Your task to perform on an android device: turn pop-ups off in chrome Image 0: 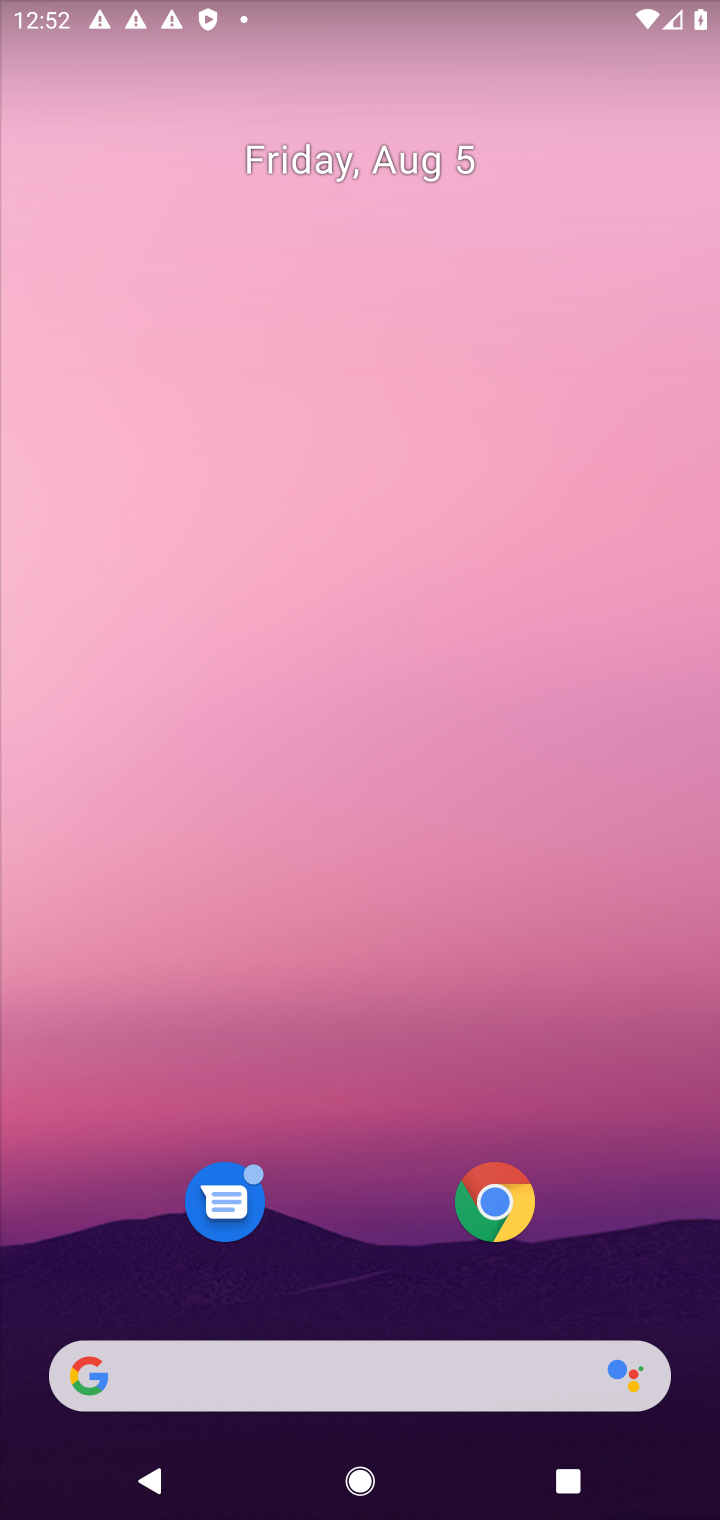
Step 0: press home button
Your task to perform on an android device: turn pop-ups off in chrome Image 1: 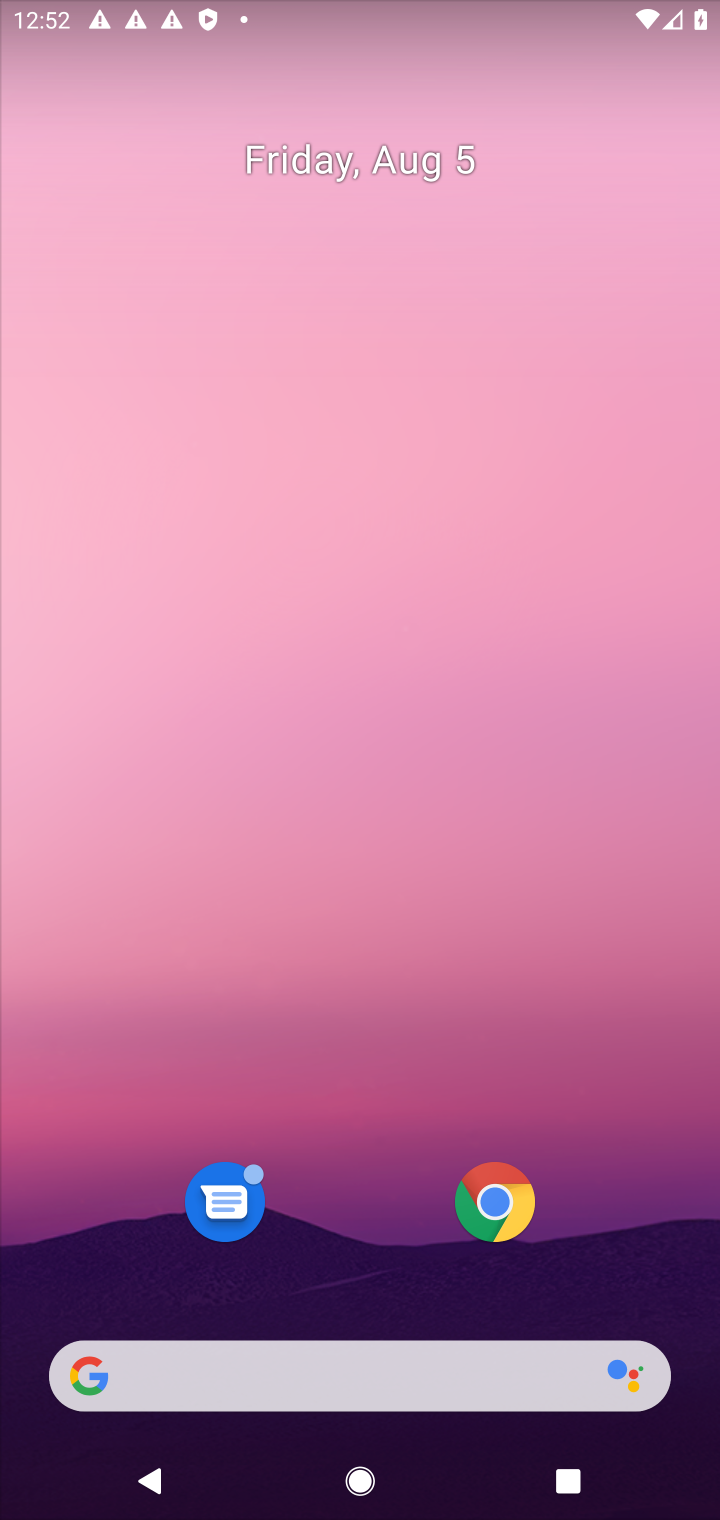
Step 1: drag from (557, 881) to (391, 232)
Your task to perform on an android device: turn pop-ups off in chrome Image 2: 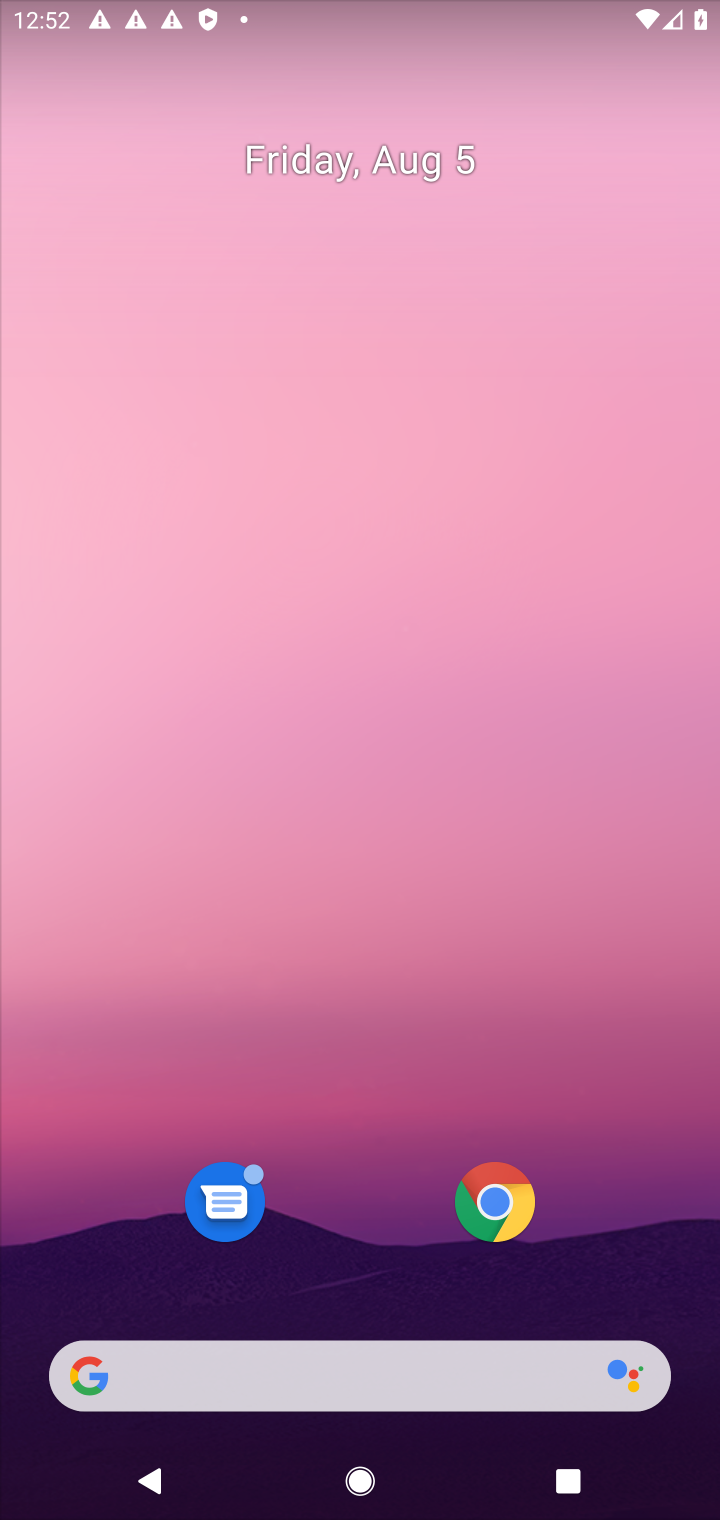
Step 2: drag from (348, 765) to (496, 193)
Your task to perform on an android device: turn pop-ups off in chrome Image 3: 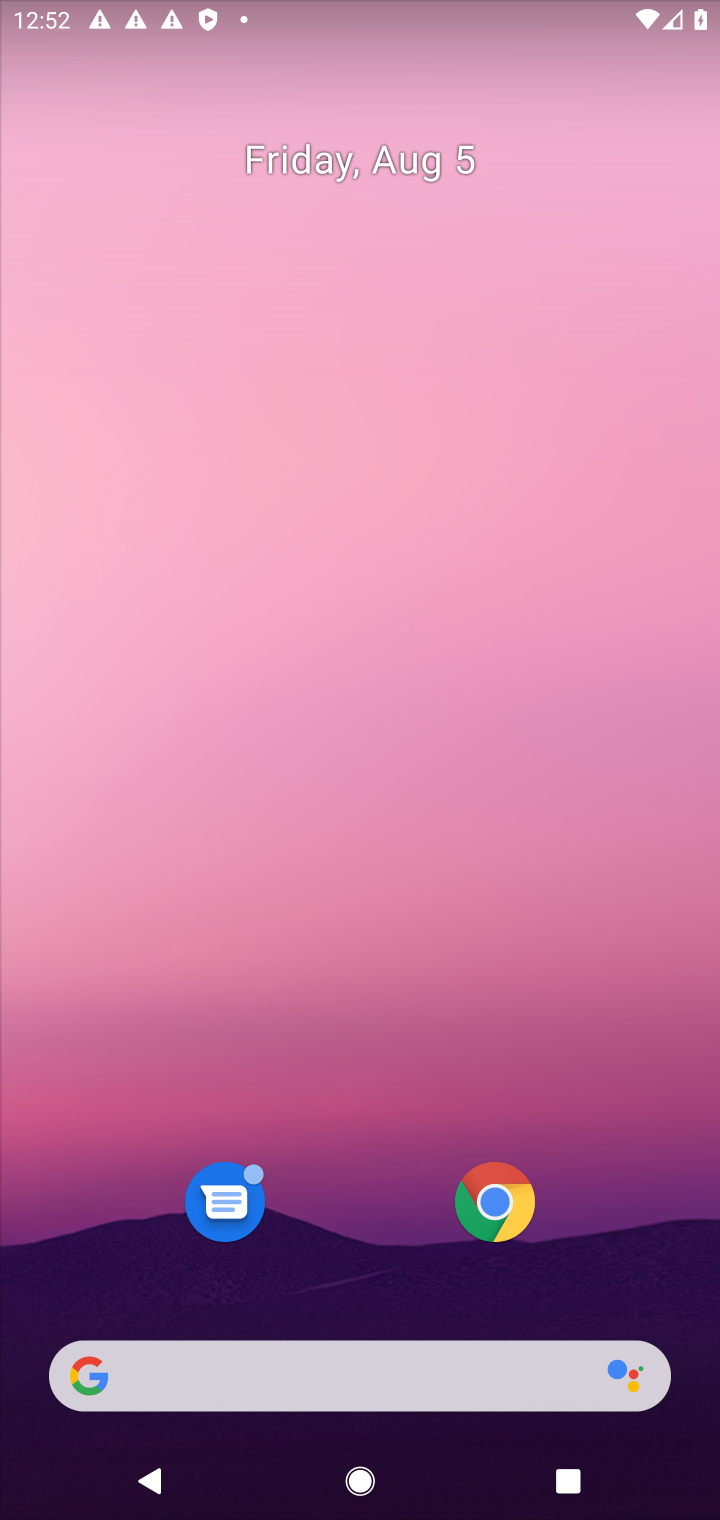
Step 3: drag from (346, 1241) to (424, 167)
Your task to perform on an android device: turn pop-ups off in chrome Image 4: 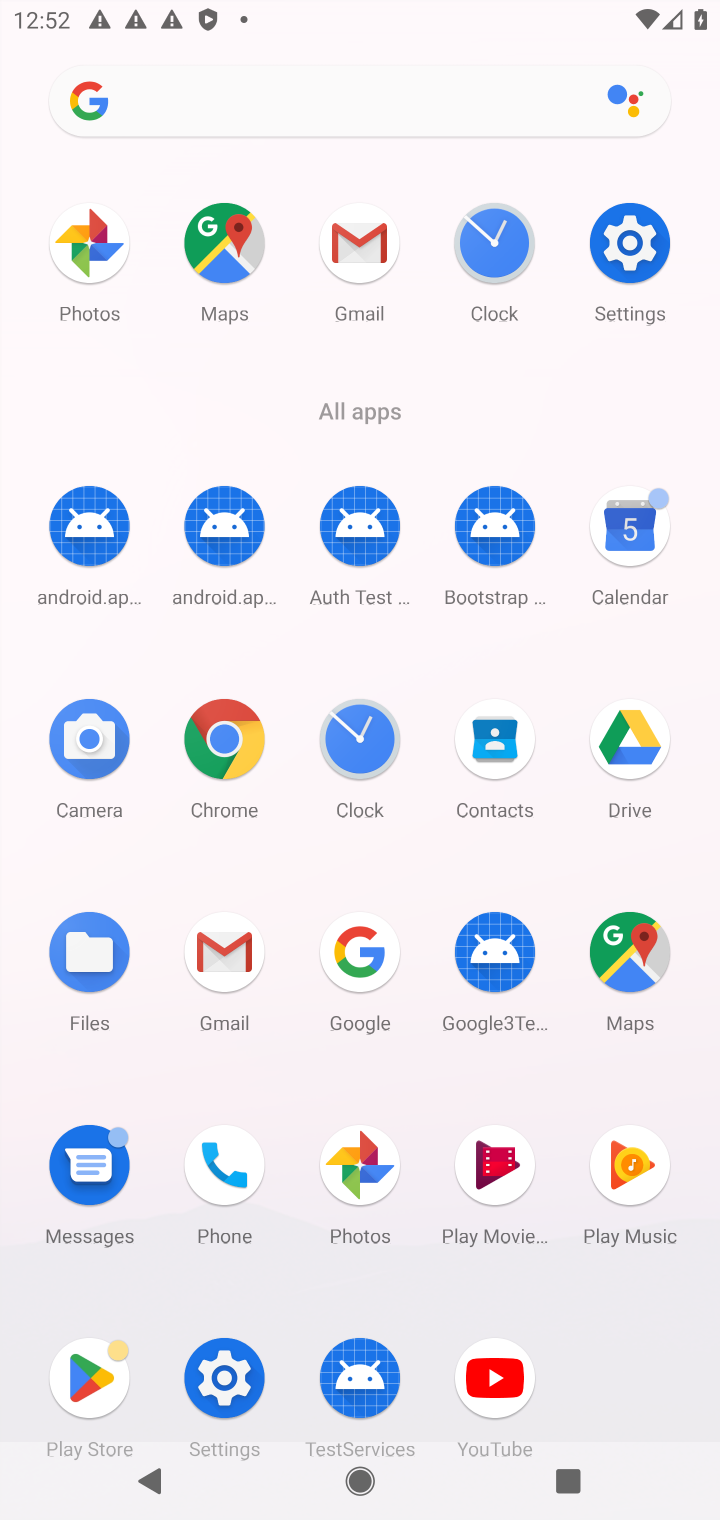
Step 4: click (218, 740)
Your task to perform on an android device: turn pop-ups off in chrome Image 5: 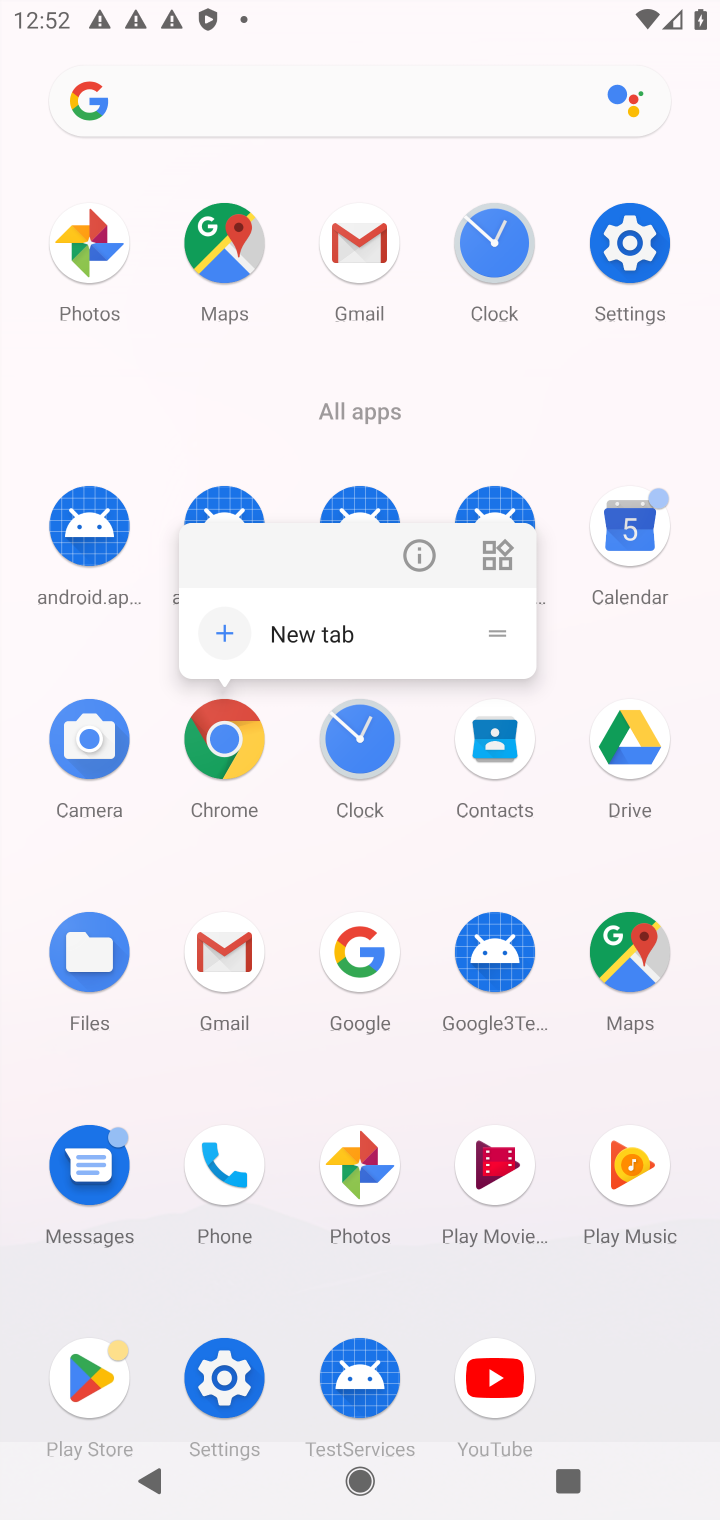
Step 5: click (216, 755)
Your task to perform on an android device: turn pop-ups off in chrome Image 6: 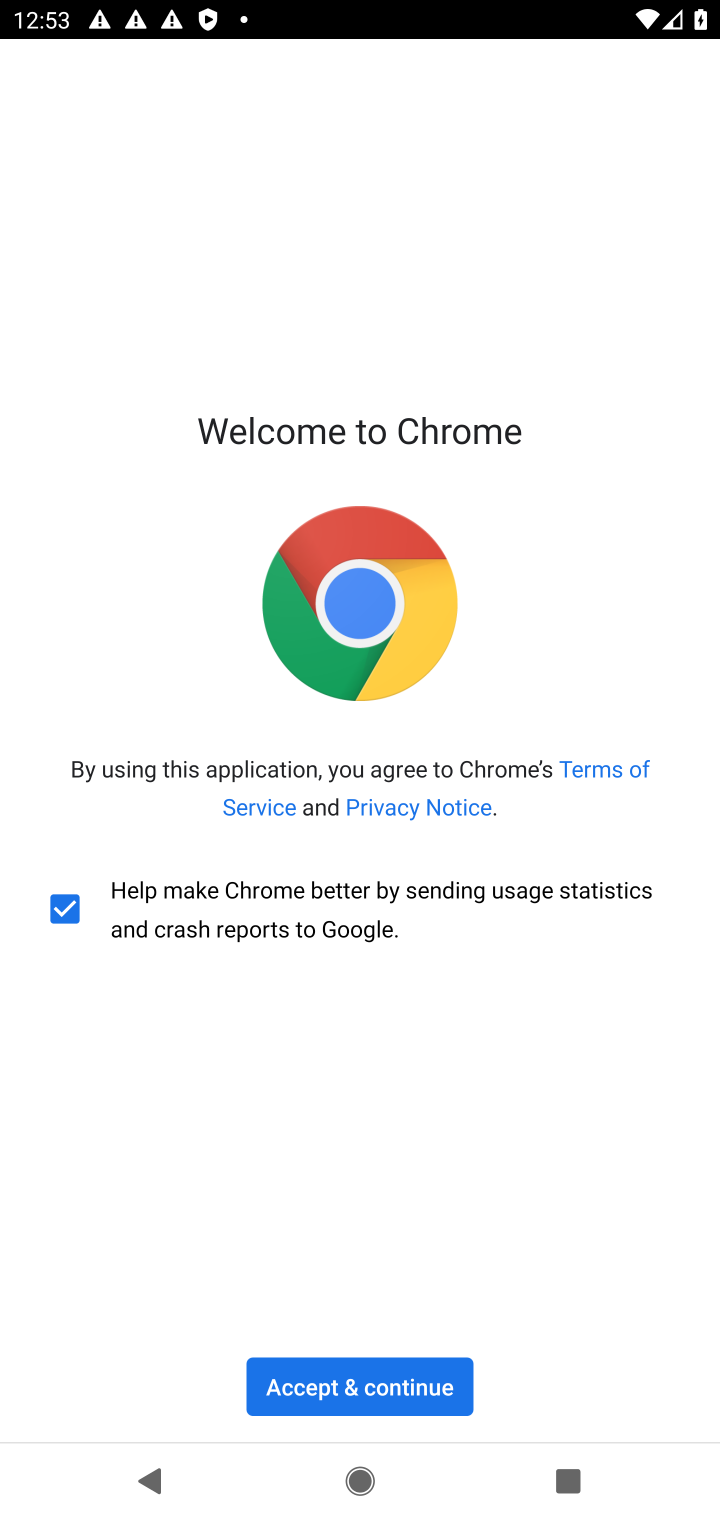
Step 6: click (409, 1378)
Your task to perform on an android device: turn pop-ups off in chrome Image 7: 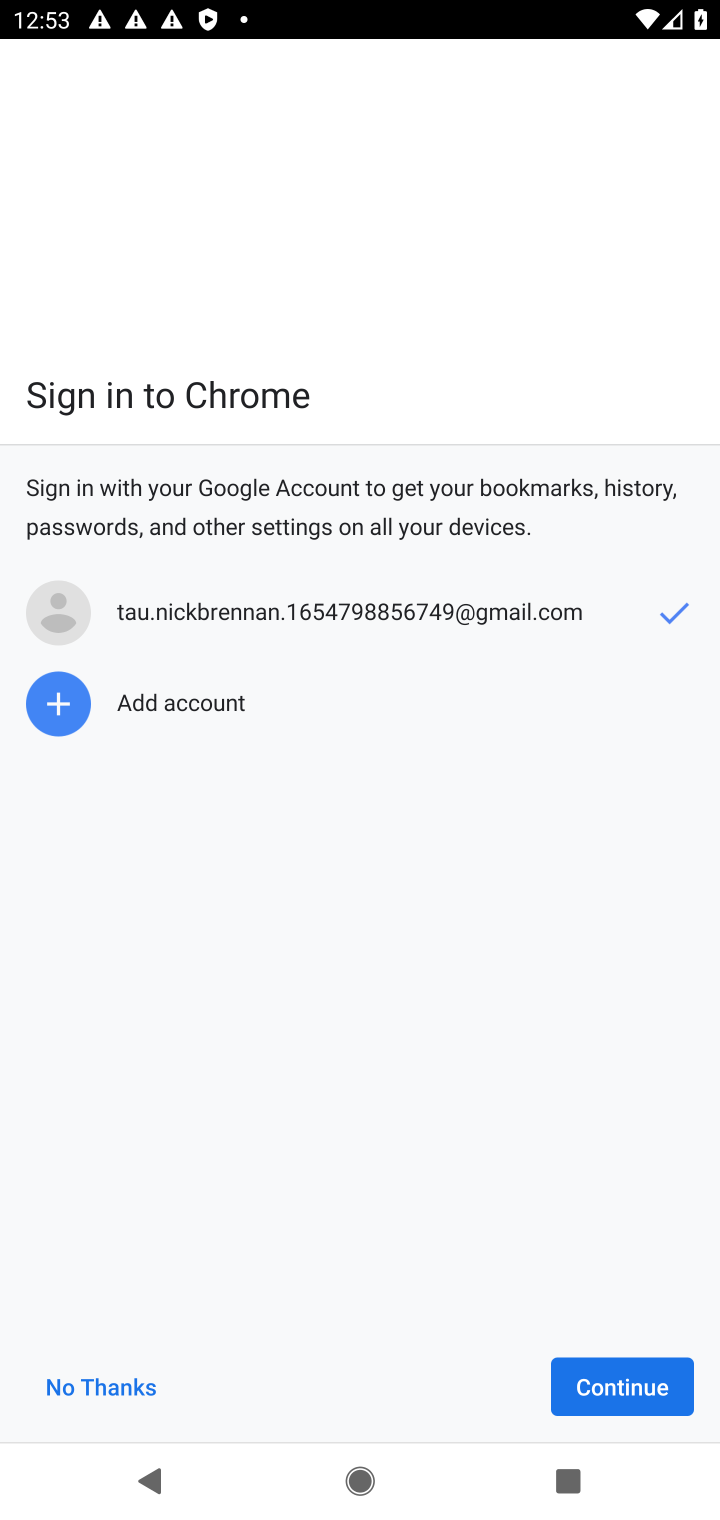
Step 7: click (653, 1393)
Your task to perform on an android device: turn pop-ups off in chrome Image 8: 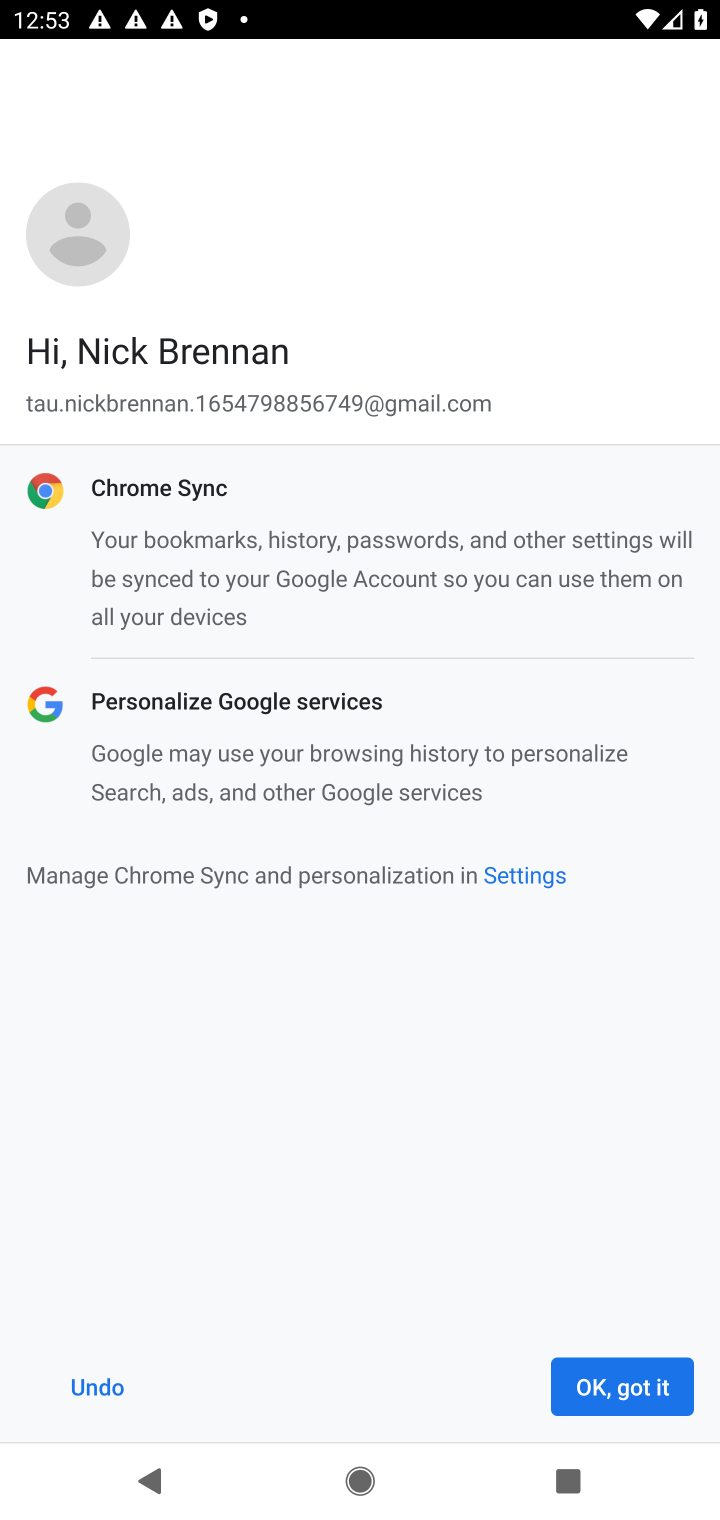
Step 8: click (639, 1392)
Your task to perform on an android device: turn pop-ups off in chrome Image 9: 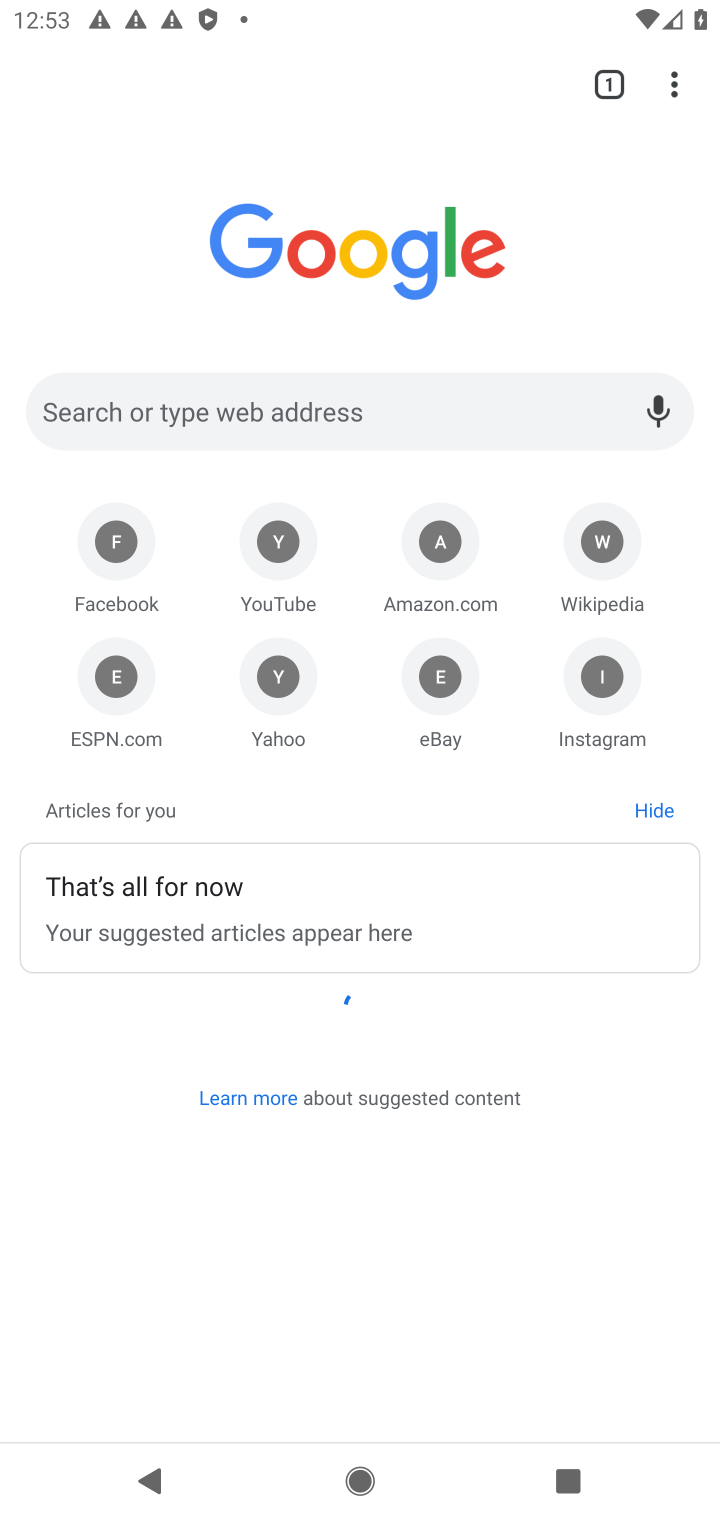
Step 9: click (671, 78)
Your task to perform on an android device: turn pop-ups off in chrome Image 10: 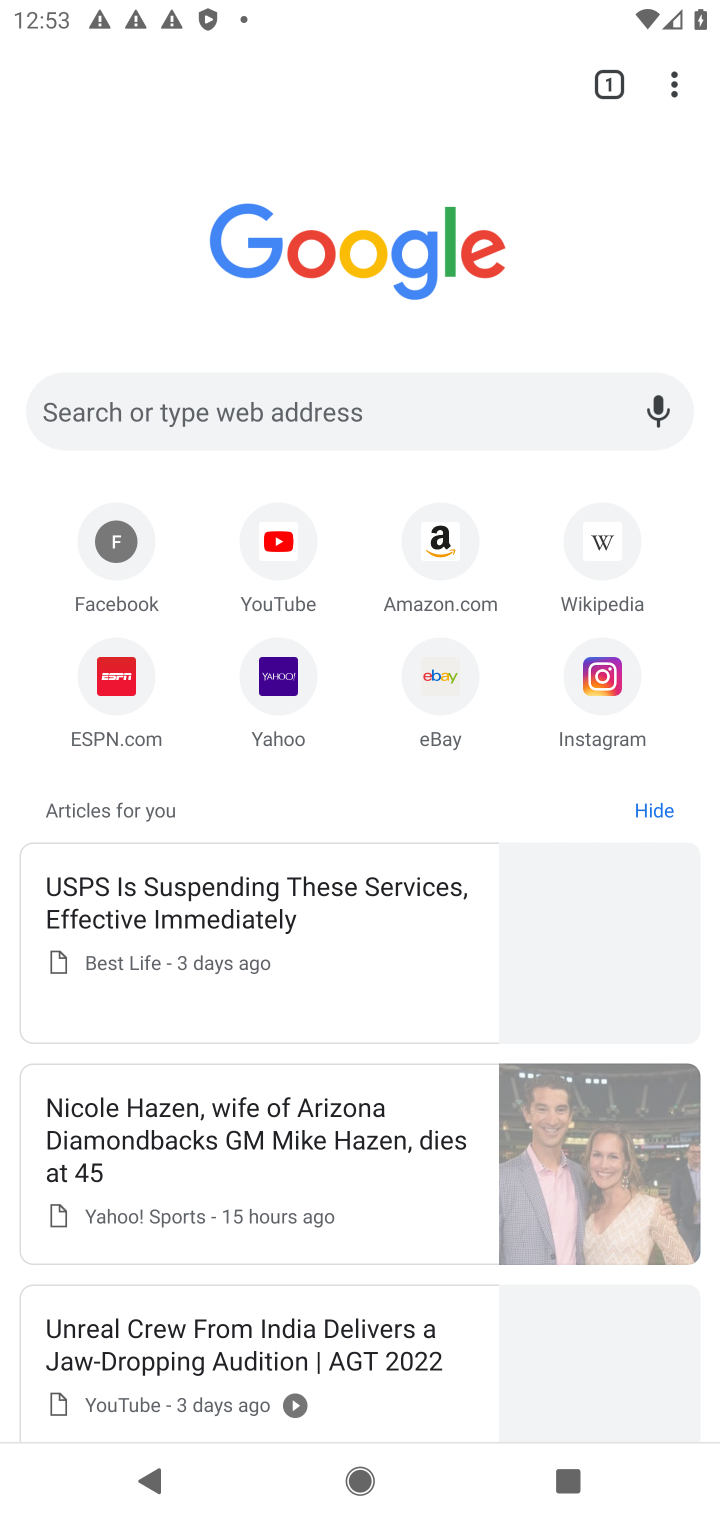
Step 10: drag from (667, 84) to (379, 712)
Your task to perform on an android device: turn pop-ups off in chrome Image 11: 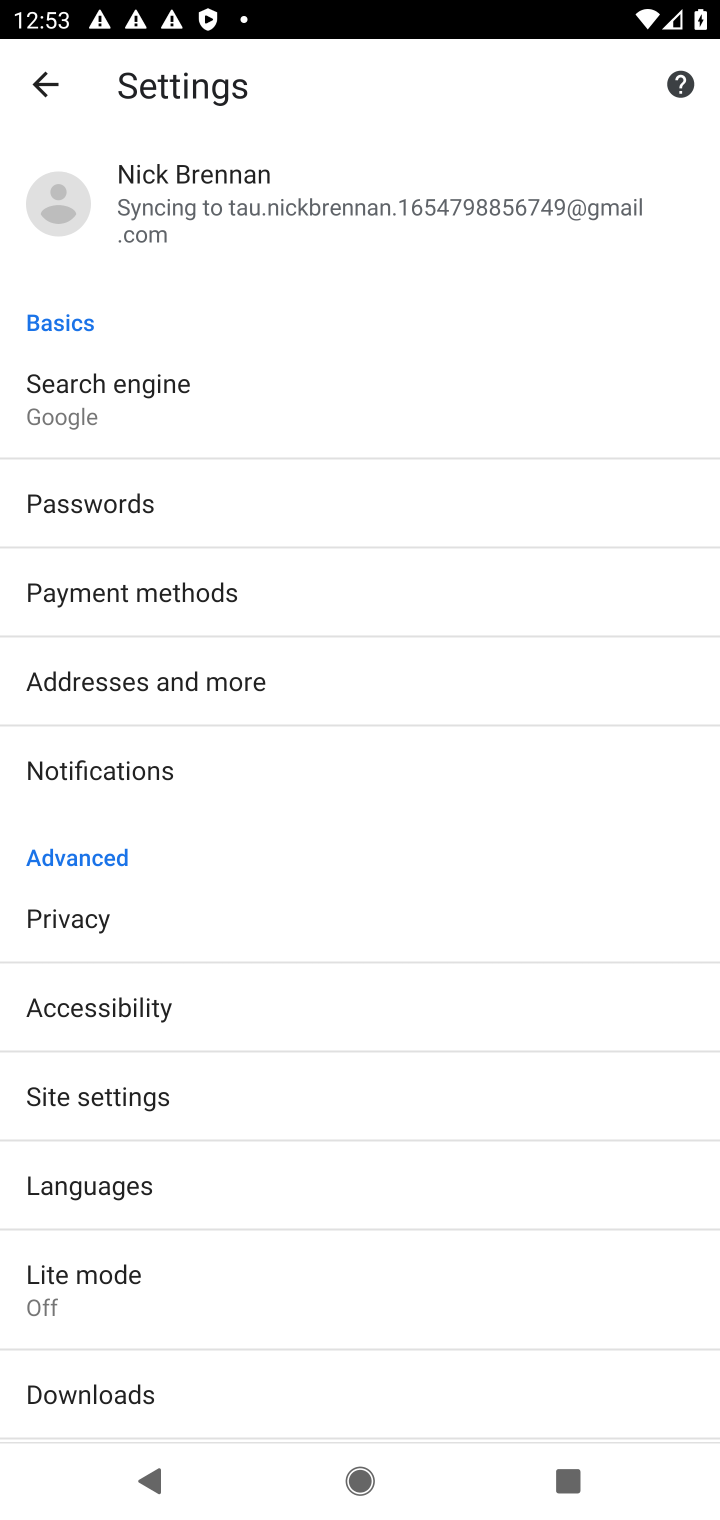
Step 11: drag from (390, 1014) to (426, 383)
Your task to perform on an android device: turn pop-ups off in chrome Image 12: 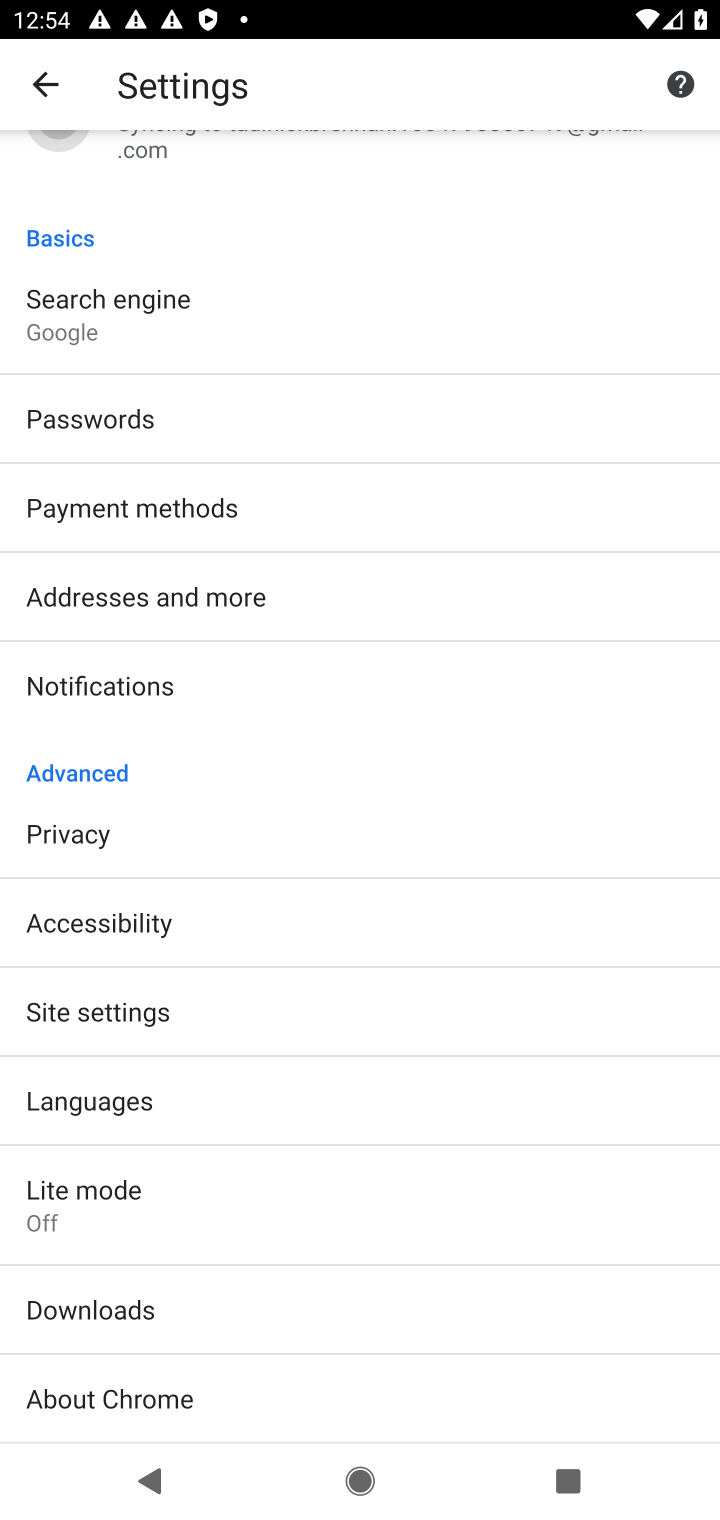
Step 12: click (159, 1008)
Your task to perform on an android device: turn pop-ups off in chrome Image 13: 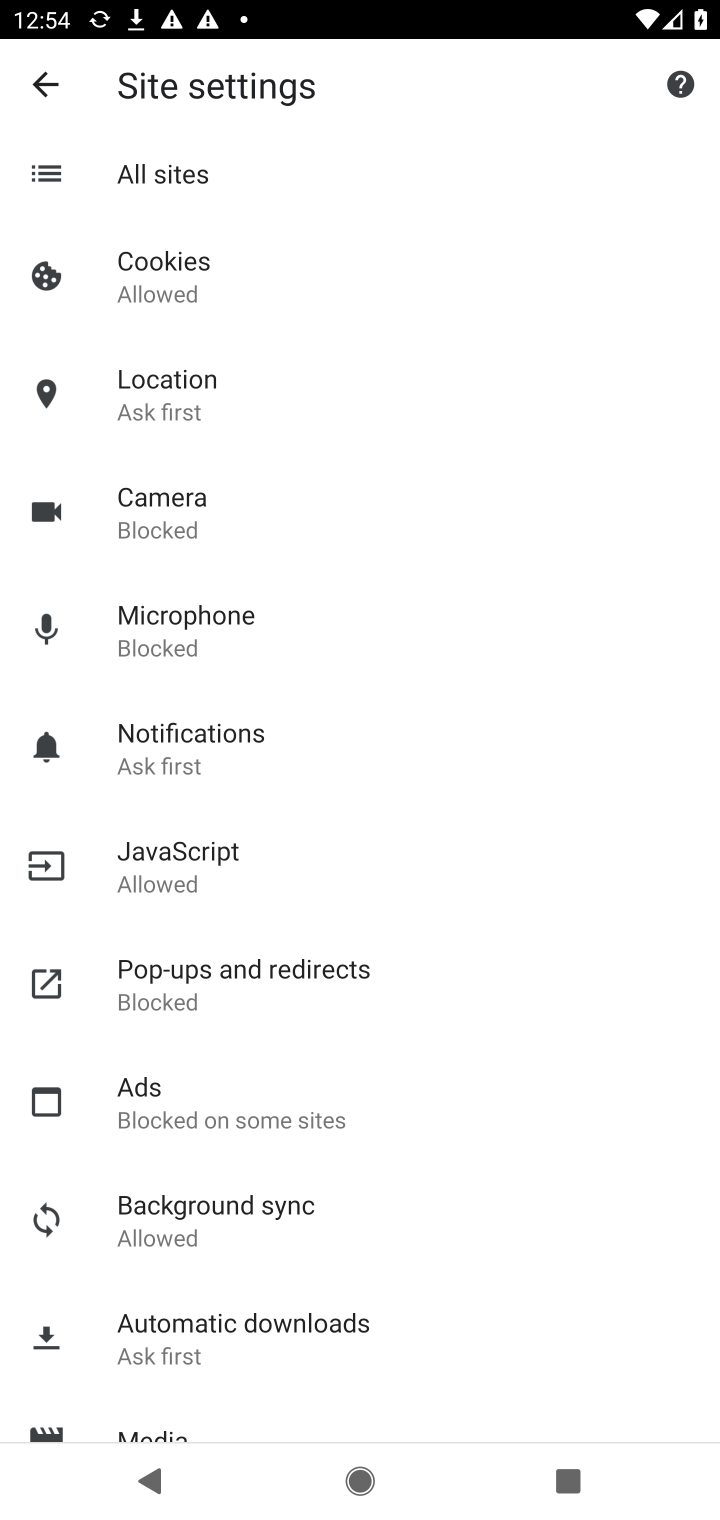
Step 13: click (285, 971)
Your task to perform on an android device: turn pop-ups off in chrome Image 14: 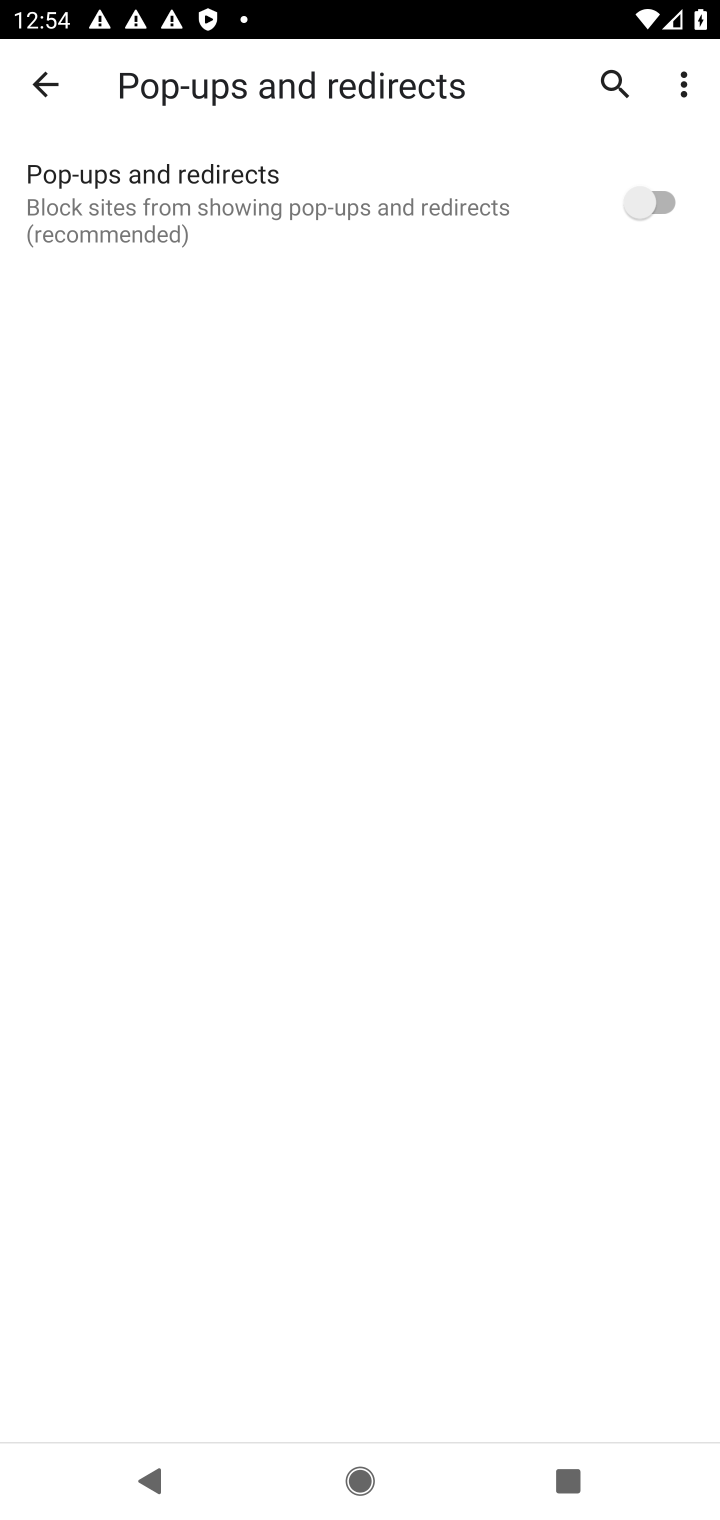
Step 14: task complete